Your task to perform on an android device: Open display settings Image 0: 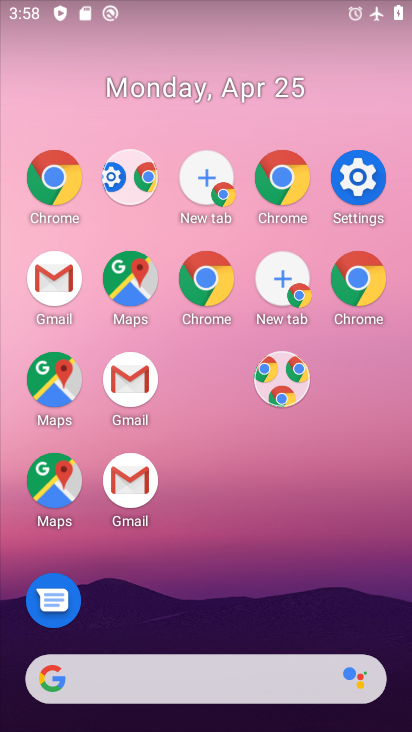
Step 0: drag from (223, 708) to (198, 2)
Your task to perform on an android device: Open display settings Image 1: 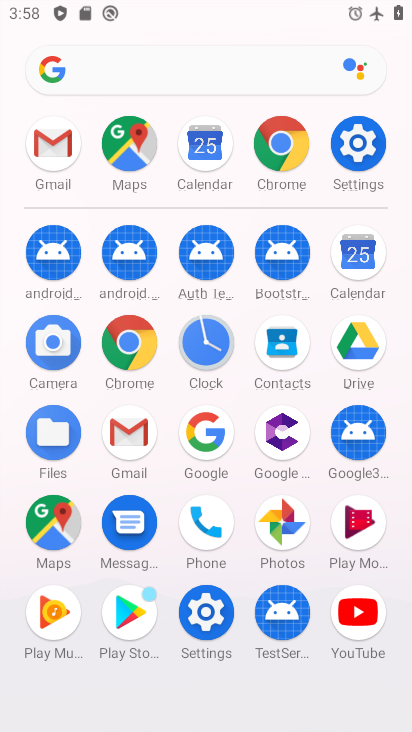
Step 1: click (355, 160)
Your task to perform on an android device: Open display settings Image 2: 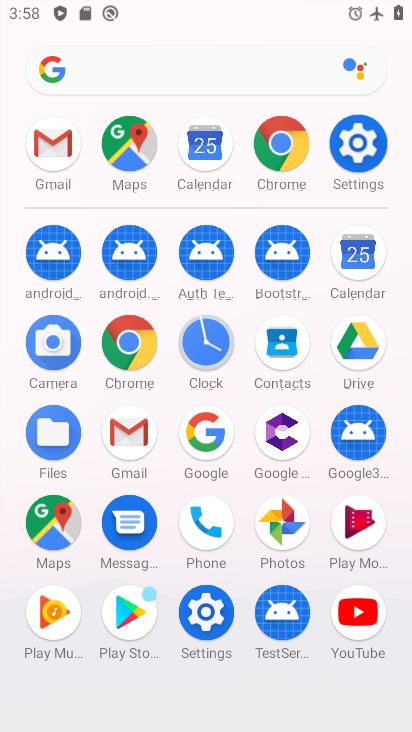
Step 2: click (355, 160)
Your task to perform on an android device: Open display settings Image 3: 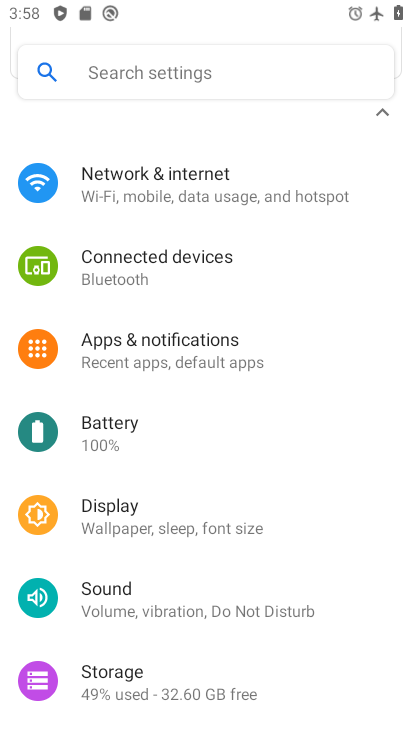
Step 3: click (107, 517)
Your task to perform on an android device: Open display settings Image 4: 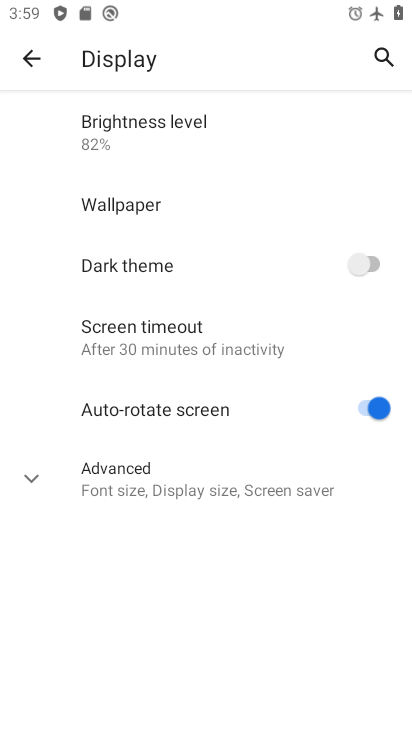
Step 4: task complete